Your task to perform on an android device: Go to Amazon Image 0: 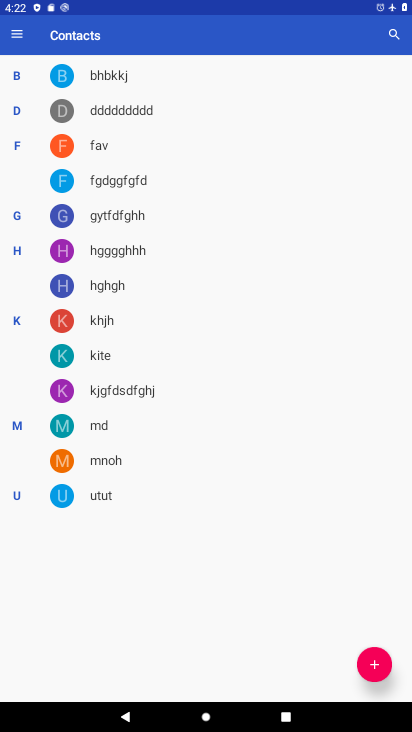
Step 0: press home button
Your task to perform on an android device: Go to Amazon Image 1: 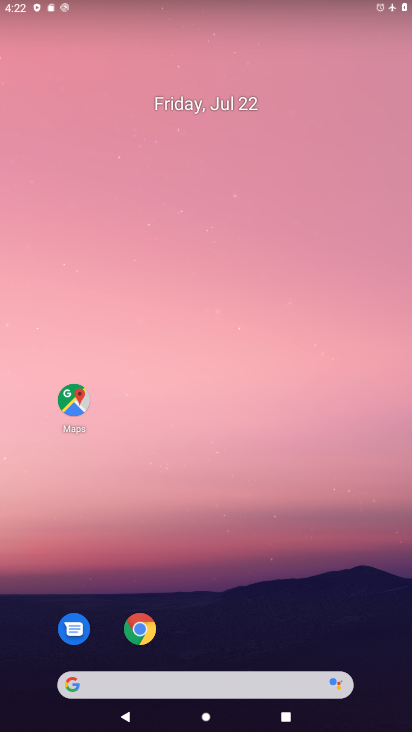
Step 1: drag from (276, 582) to (299, 3)
Your task to perform on an android device: Go to Amazon Image 2: 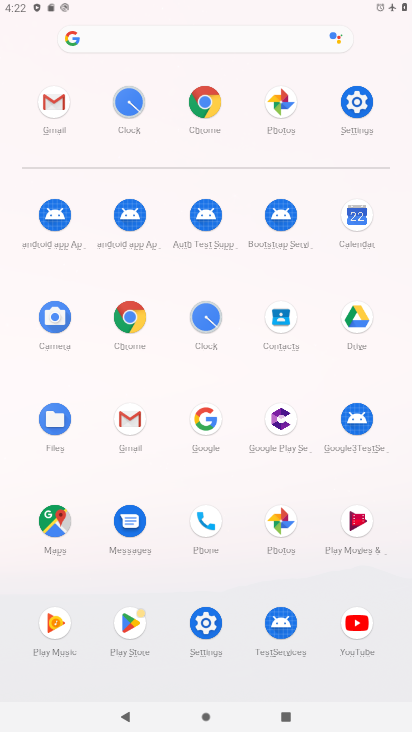
Step 2: click (209, 105)
Your task to perform on an android device: Go to Amazon Image 3: 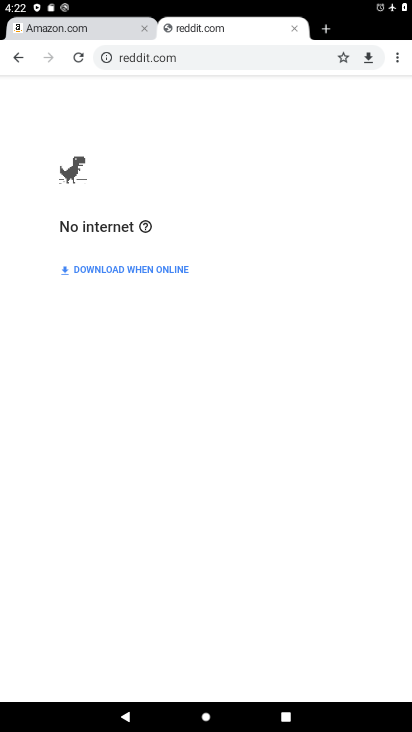
Step 3: click (287, 50)
Your task to perform on an android device: Go to Amazon Image 4: 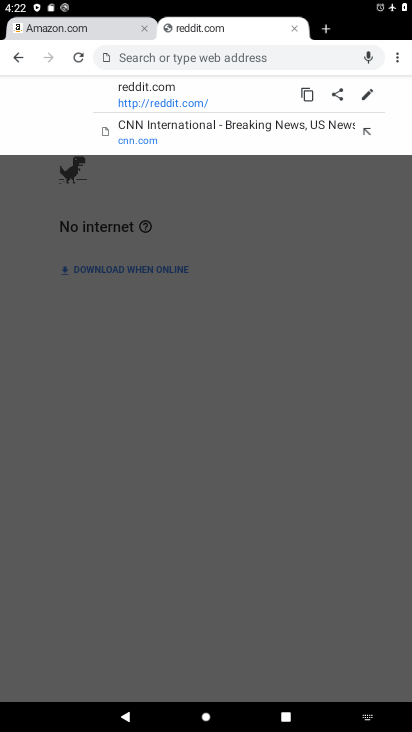
Step 4: type "amazon"
Your task to perform on an android device: Go to Amazon Image 5: 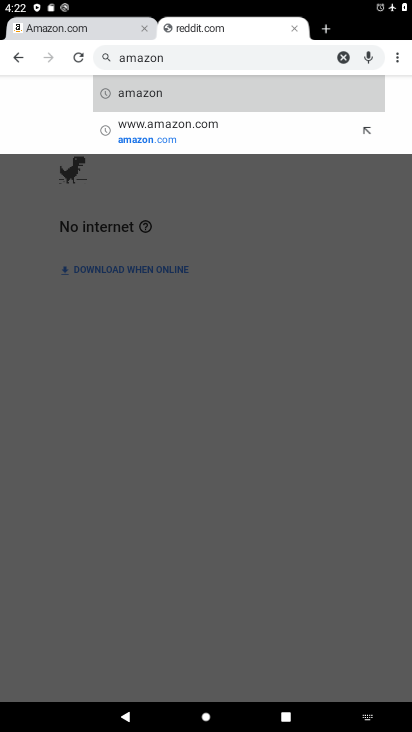
Step 5: click (140, 141)
Your task to perform on an android device: Go to Amazon Image 6: 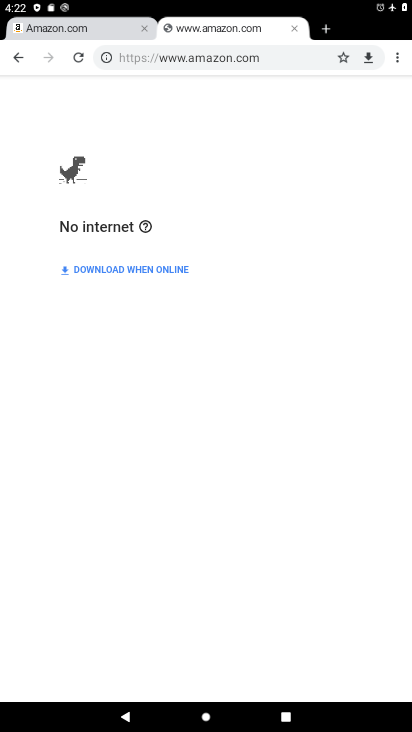
Step 6: task complete